Your task to perform on an android device: clear all cookies in the chrome app Image 0: 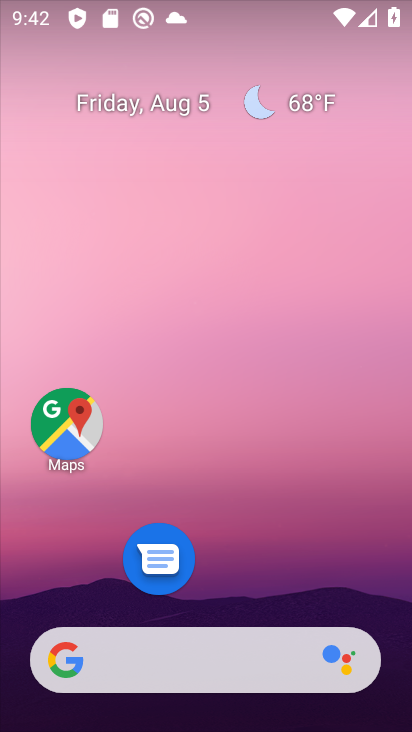
Step 0: drag from (239, 617) to (263, 153)
Your task to perform on an android device: clear all cookies in the chrome app Image 1: 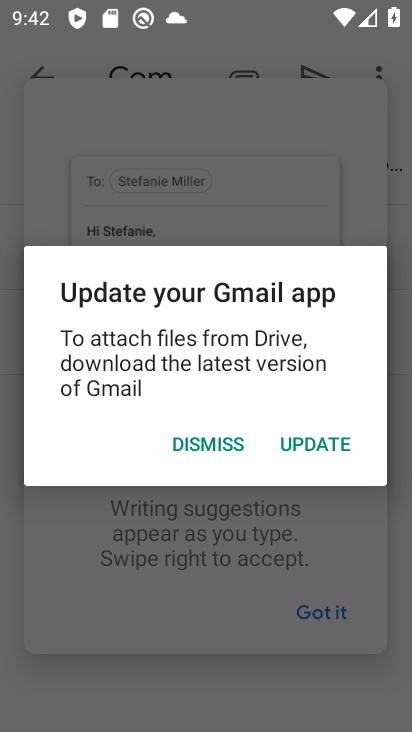
Step 1: press home button
Your task to perform on an android device: clear all cookies in the chrome app Image 2: 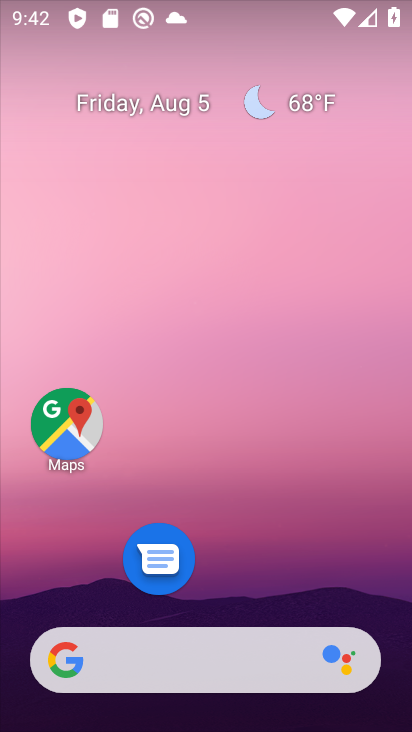
Step 2: drag from (270, 572) to (332, 155)
Your task to perform on an android device: clear all cookies in the chrome app Image 3: 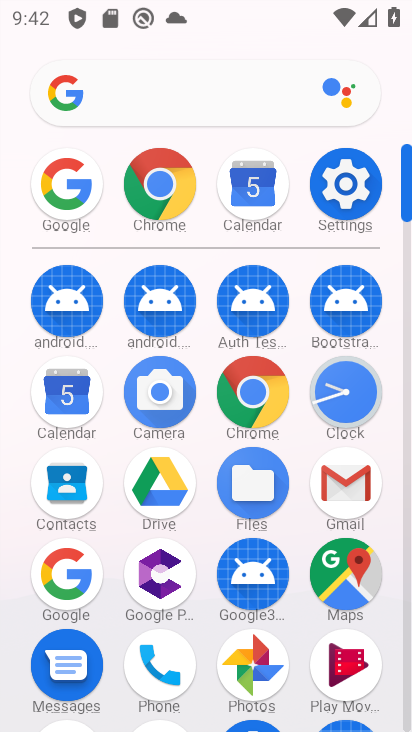
Step 3: click (166, 183)
Your task to perform on an android device: clear all cookies in the chrome app Image 4: 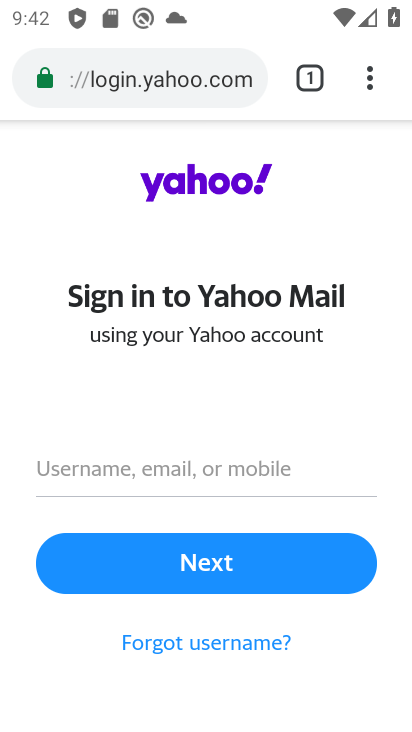
Step 4: click (366, 79)
Your task to perform on an android device: clear all cookies in the chrome app Image 5: 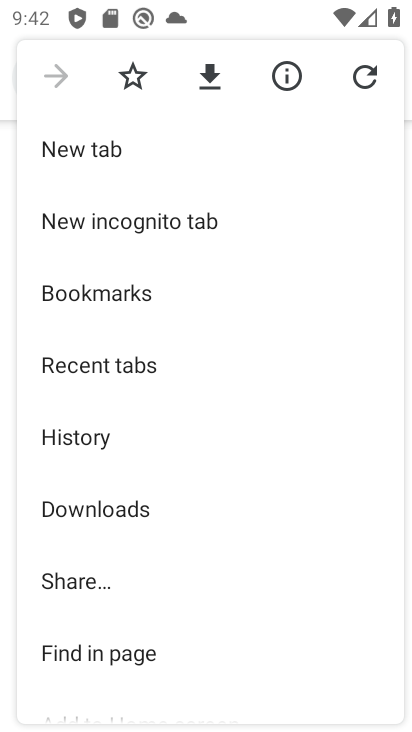
Step 5: click (99, 452)
Your task to perform on an android device: clear all cookies in the chrome app Image 6: 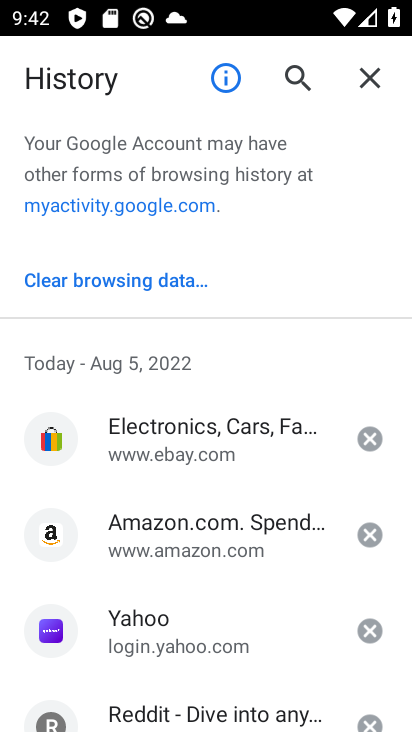
Step 6: click (129, 281)
Your task to perform on an android device: clear all cookies in the chrome app Image 7: 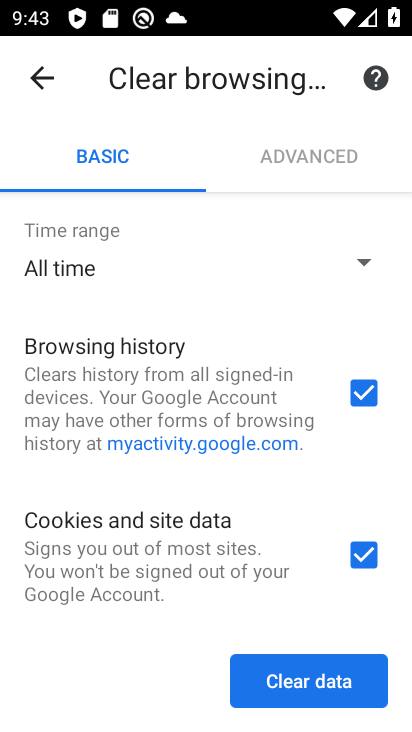
Step 7: click (371, 385)
Your task to perform on an android device: clear all cookies in the chrome app Image 8: 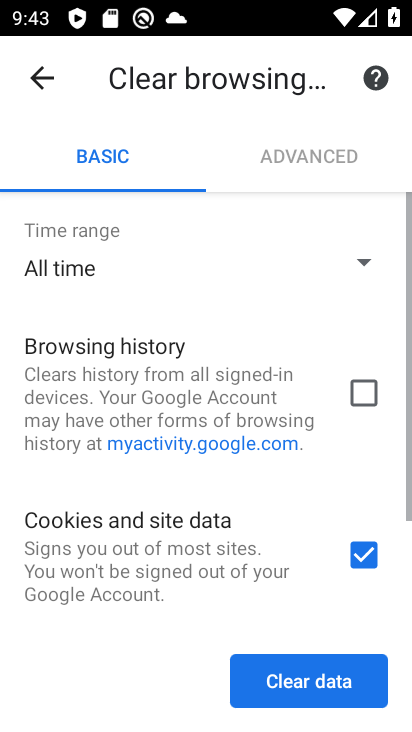
Step 8: click (307, 687)
Your task to perform on an android device: clear all cookies in the chrome app Image 9: 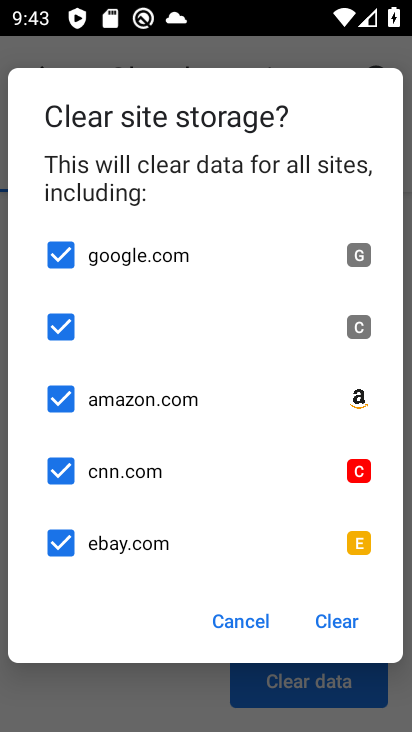
Step 9: click (341, 627)
Your task to perform on an android device: clear all cookies in the chrome app Image 10: 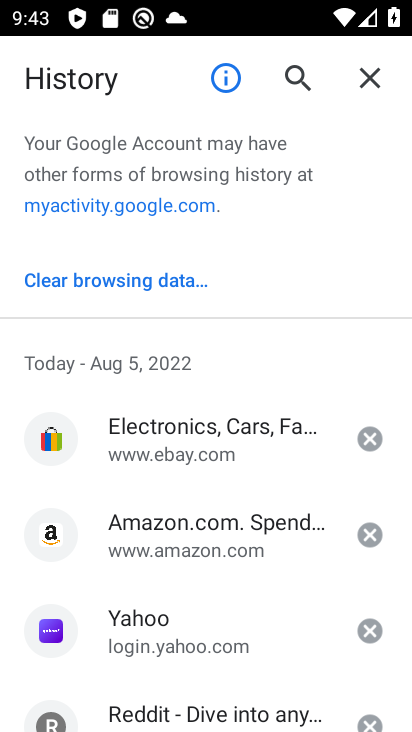
Step 10: task complete